Your task to perform on an android device: turn off improve location accuracy Image 0: 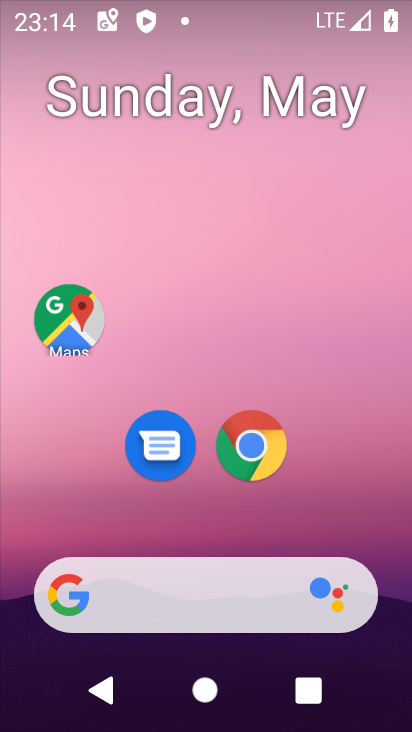
Step 0: drag from (228, 395) to (272, 4)
Your task to perform on an android device: turn off improve location accuracy Image 1: 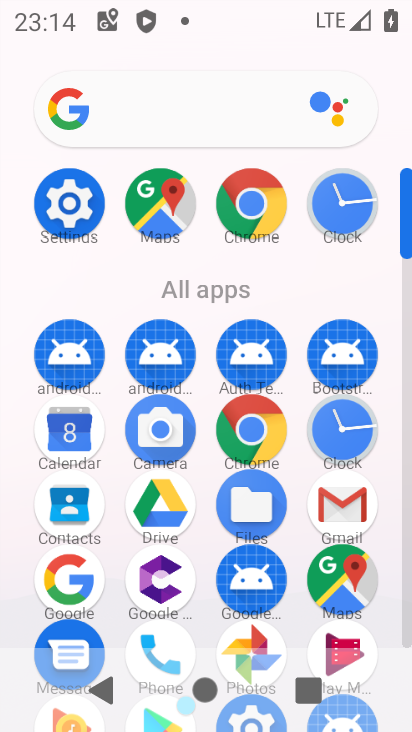
Step 1: click (65, 188)
Your task to perform on an android device: turn off improve location accuracy Image 2: 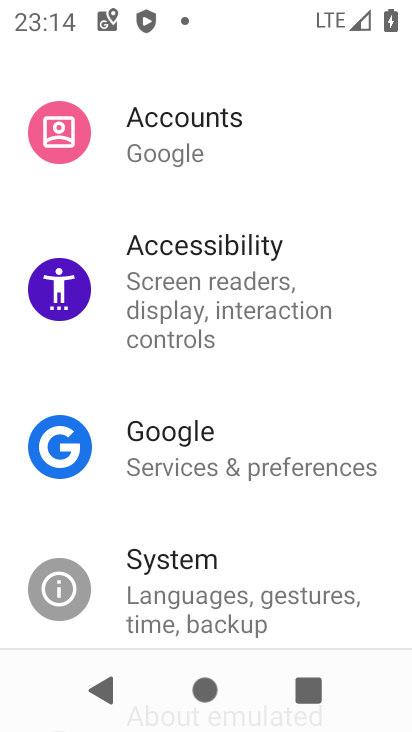
Step 2: drag from (228, 196) to (220, 482)
Your task to perform on an android device: turn off improve location accuracy Image 3: 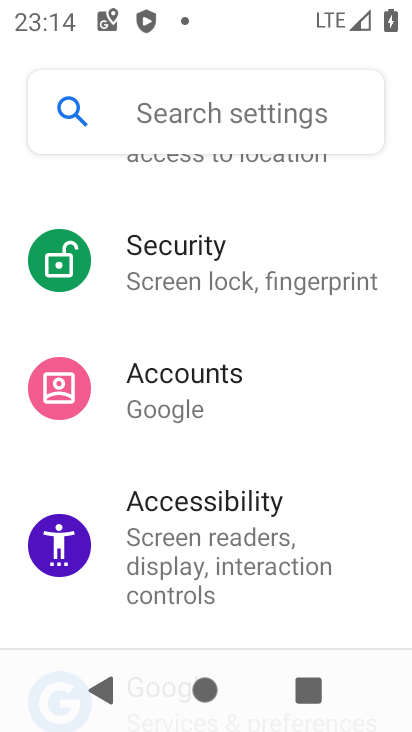
Step 3: drag from (223, 208) to (212, 407)
Your task to perform on an android device: turn off improve location accuracy Image 4: 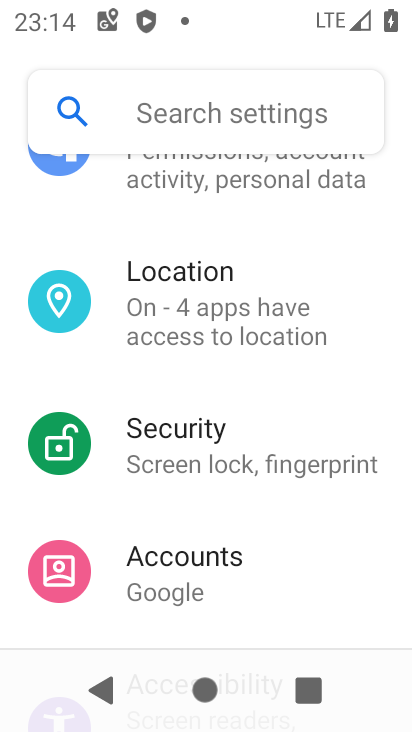
Step 4: click (349, 290)
Your task to perform on an android device: turn off improve location accuracy Image 5: 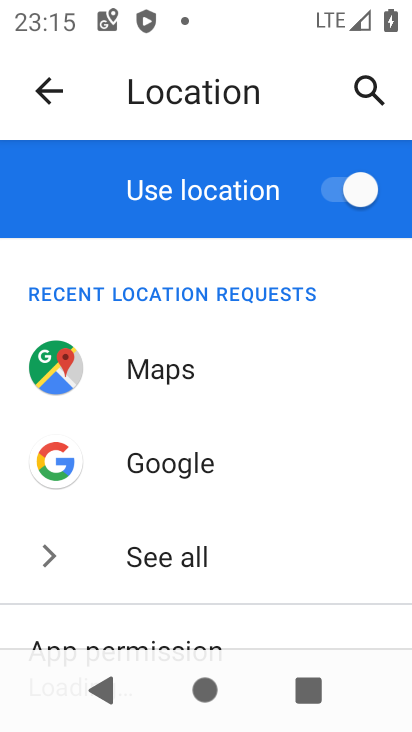
Step 5: drag from (232, 602) to (317, 86)
Your task to perform on an android device: turn off improve location accuracy Image 6: 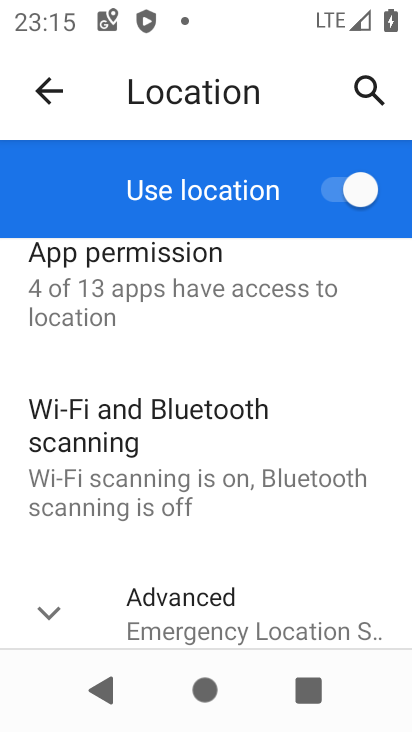
Step 6: click (170, 607)
Your task to perform on an android device: turn off improve location accuracy Image 7: 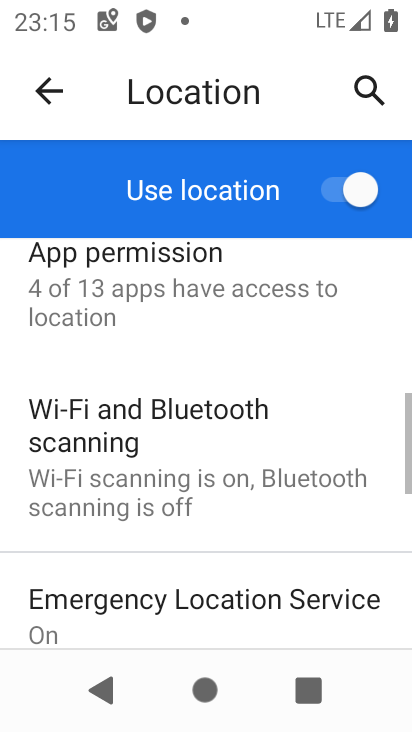
Step 7: drag from (171, 576) to (275, 189)
Your task to perform on an android device: turn off improve location accuracy Image 8: 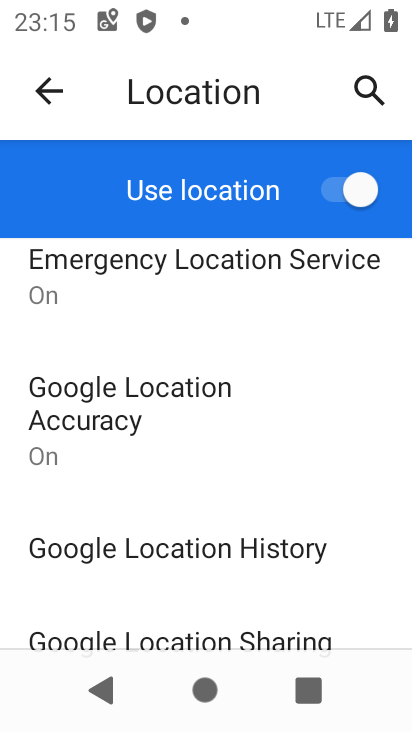
Step 8: click (162, 412)
Your task to perform on an android device: turn off improve location accuracy Image 9: 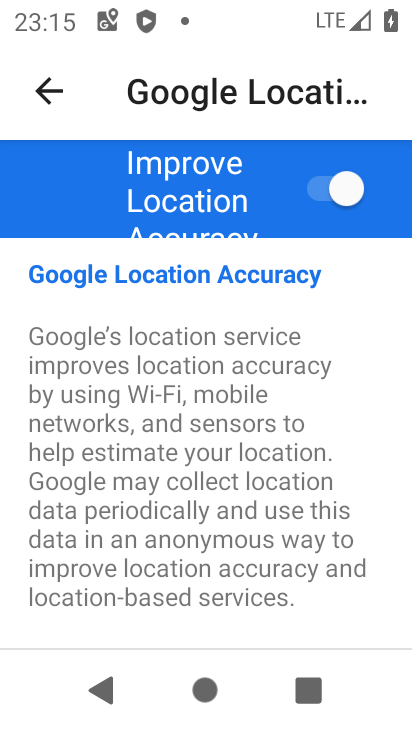
Step 9: click (330, 199)
Your task to perform on an android device: turn off improve location accuracy Image 10: 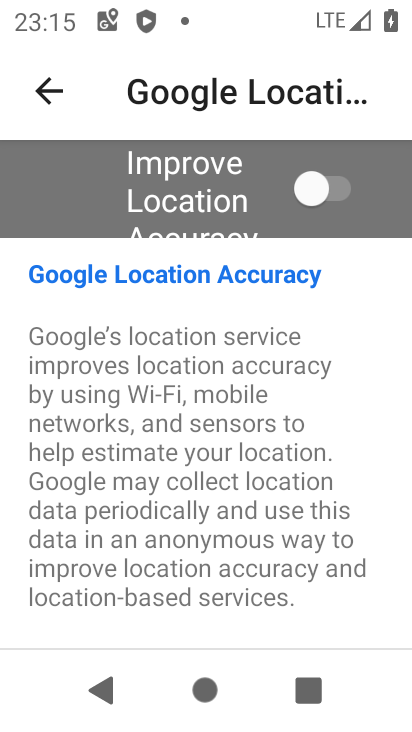
Step 10: task complete